Your task to perform on an android device: Open settings Image 0: 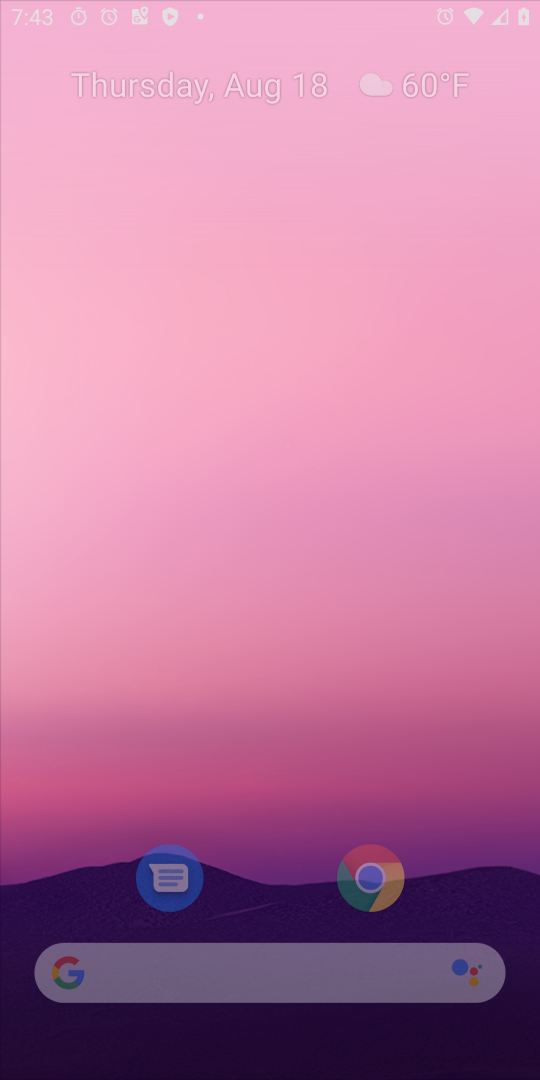
Step 0: press home button
Your task to perform on an android device: Open settings Image 1: 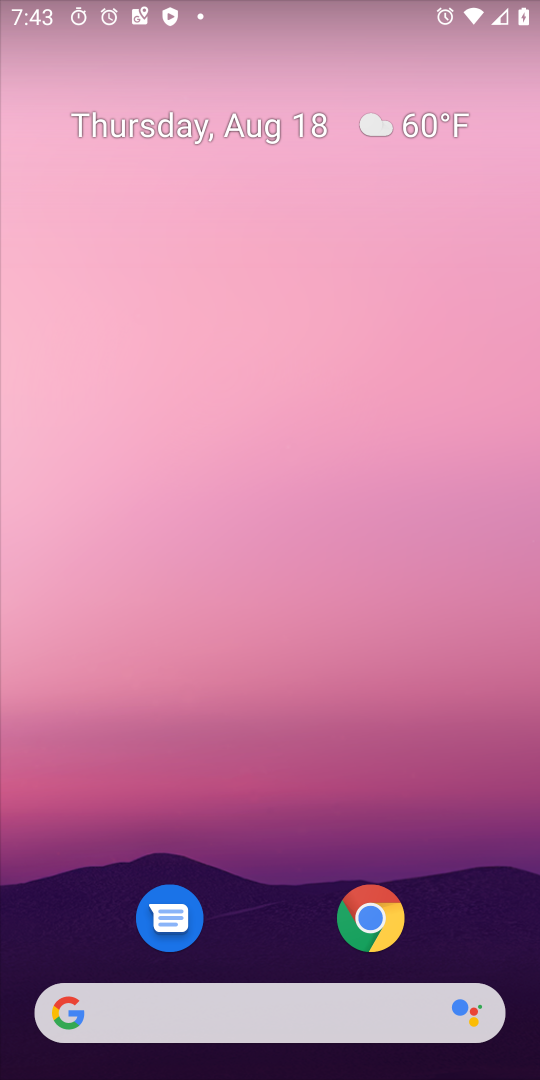
Step 1: drag from (266, 959) to (205, 38)
Your task to perform on an android device: Open settings Image 2: 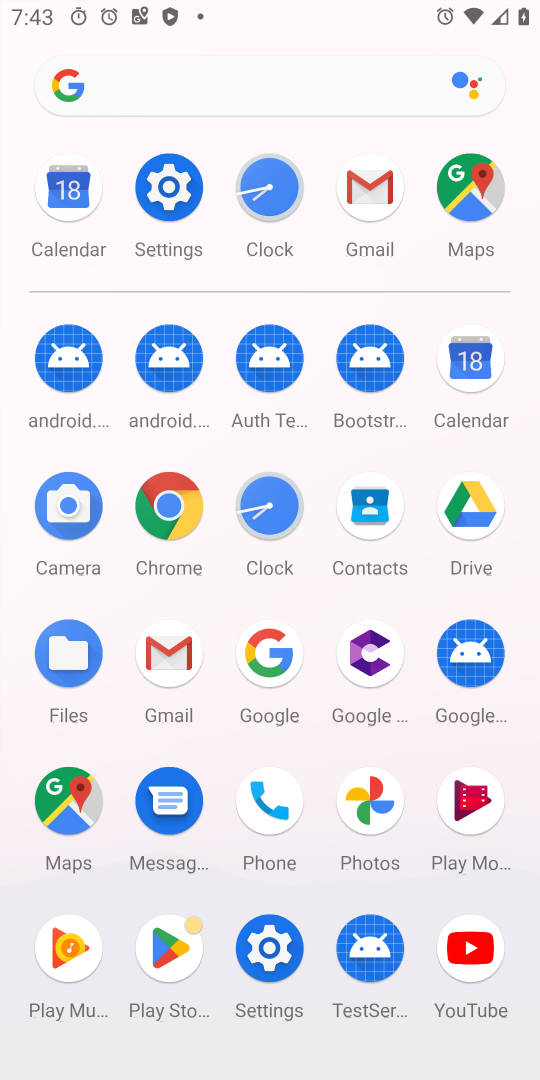
Step 2: click (173, 179)
Your task to perform on an android device: Open settings Image 3: 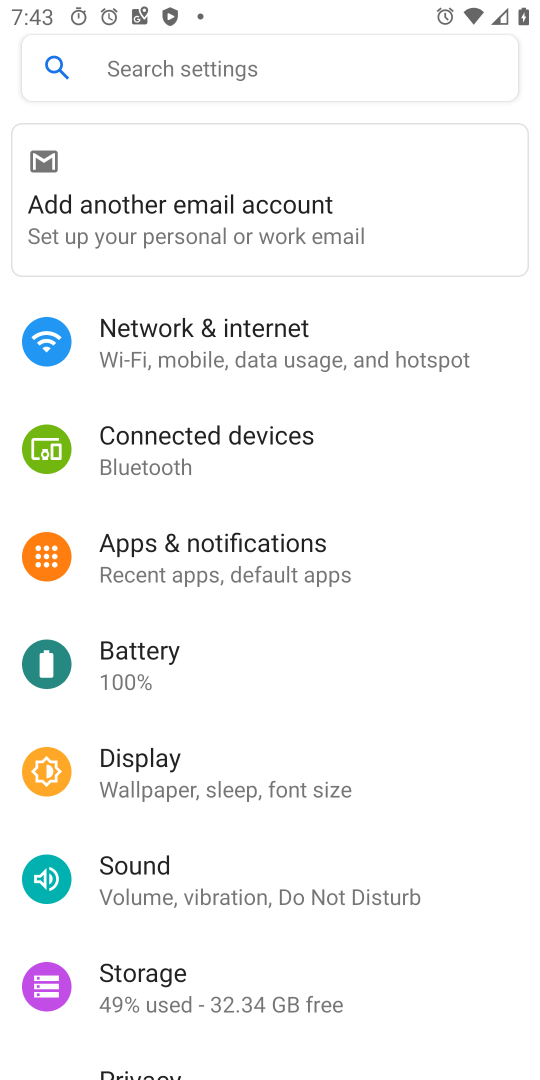
Step 3: task complete